Your task to perform on an android device: Open Google Maps Image 0: 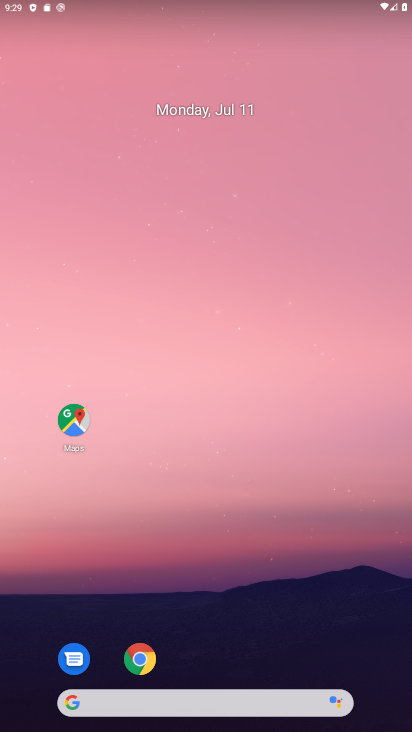
Step 0: drag from (223, 625) to (252, 0)
Your task to perform on an android device: Open Google Maps Image 1: 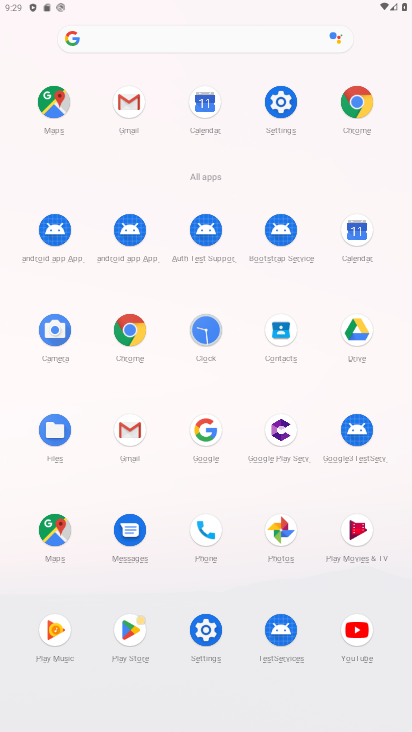
Step 1: click (53, 511)
Your task to perform on an android device: Open Google Maps Image 2: 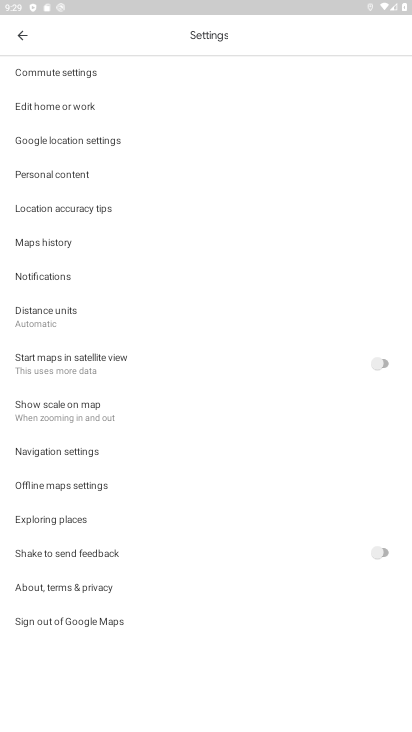
Step 2: task complete